Your task to perform on an android device: see tabs open on other devices in the chrome app Image 0: 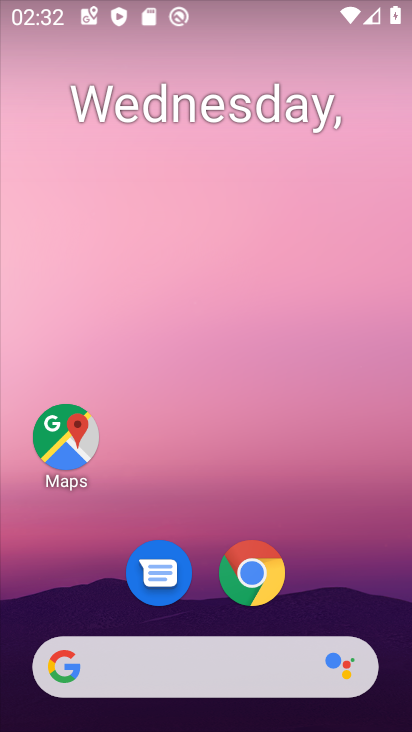
Step 0: click (256, 573)
Your task to perform on an android device: see tabs open on other devices in the chrome app Image 1: 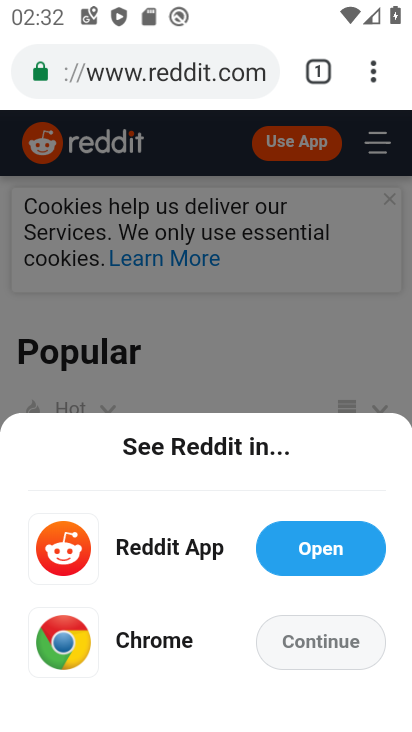
Step 1: click (374, 73)
Your task to perform on an android device: see tabs open on other devices in the chrome app Image 2: 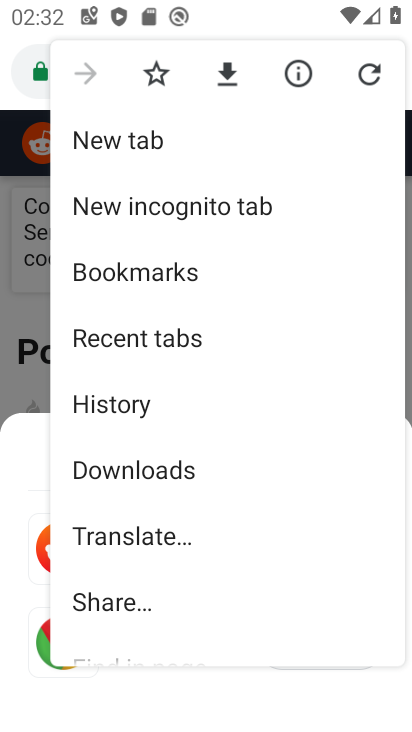
Step 2: click (104, 346)
Your task to perform on an android device: see tabs open on other devices in the chrome app Image 3: 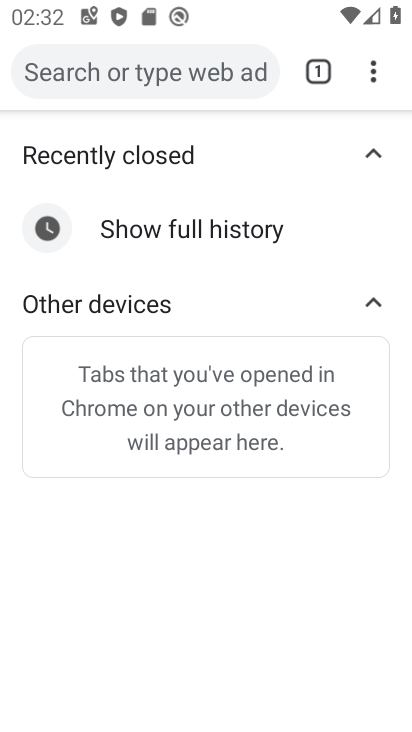
Step 3: task complete